Your task to perform on an android device: Open the map Image 0: 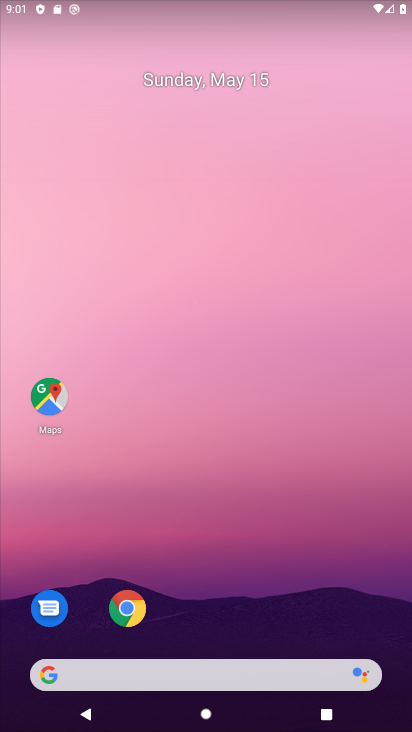
Step 0: drag from (185, 389) to (119, 1)
Your task to perform on an android device: Open the map Image 1: 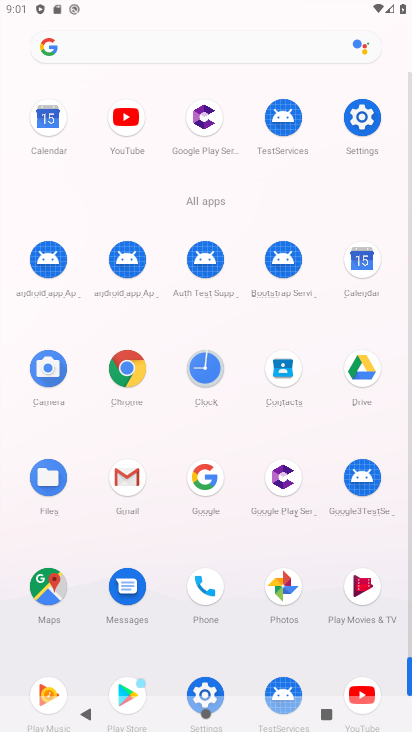
Step 1: click (41, 583)
Your task to perform on an android device: Open the map Image 2: 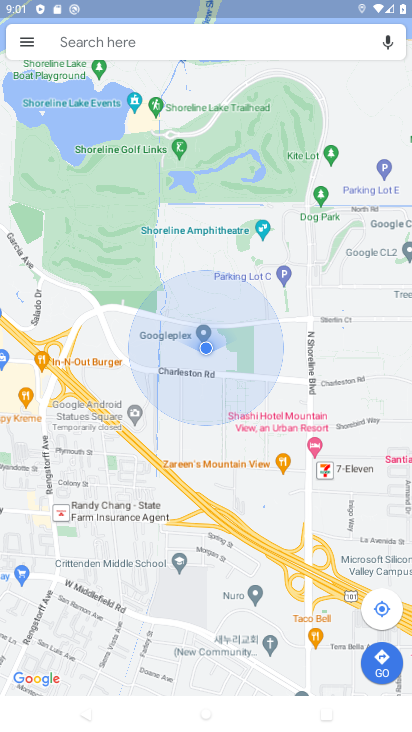
Step 2: task complete